Your task to perform on an android device: see tabs open on other devices in the chrome app Image 0: 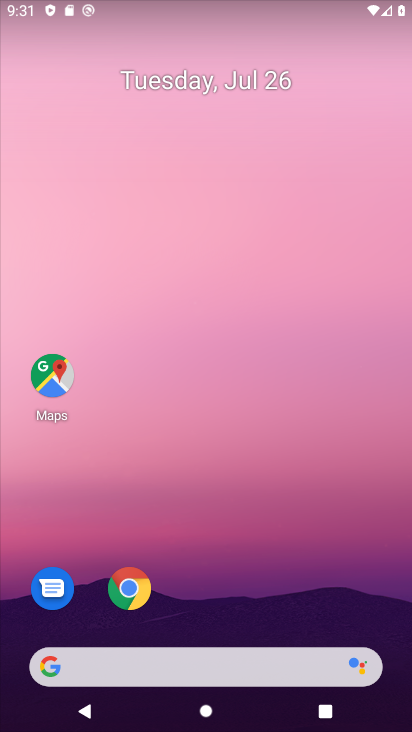
Step 0: click (123, 598)
Your task to perform on an android device: see tabs open on other devices in the chrome app Image 1: 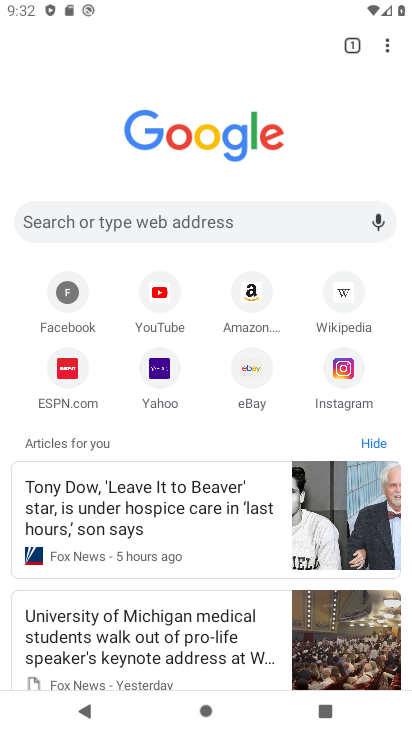
Step 1: task complete